Your task to perform on an android device: What is the recent news? Image 0: 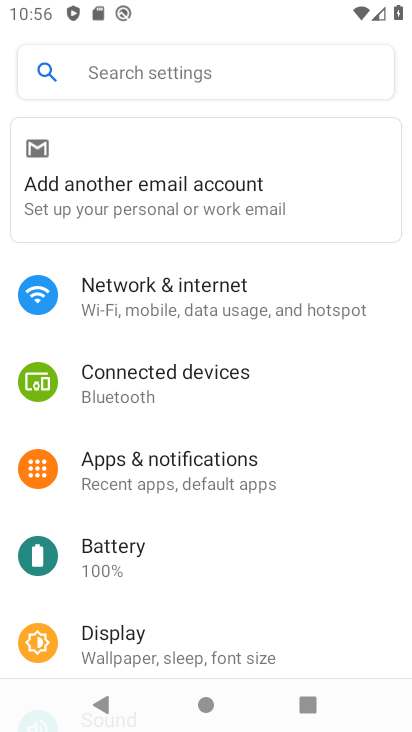
Step 0: press home button
Your task to perform on an android device: What is the recent news? Image 1: 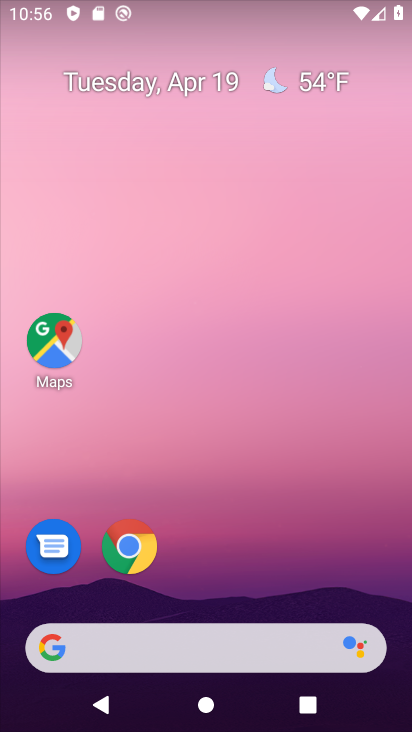
Step 1: click (228, 650)
Your task to perform on an android device: What is the recent news? Image 2: 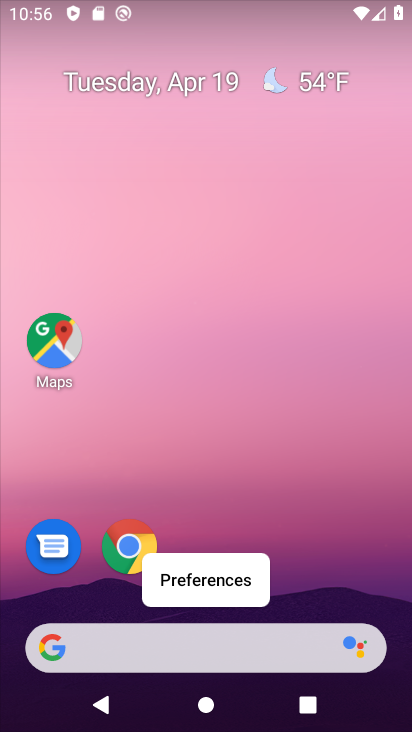
Step 2: click (242, 652)
Your task to perform on an android device: What is the recent news? Image 3: 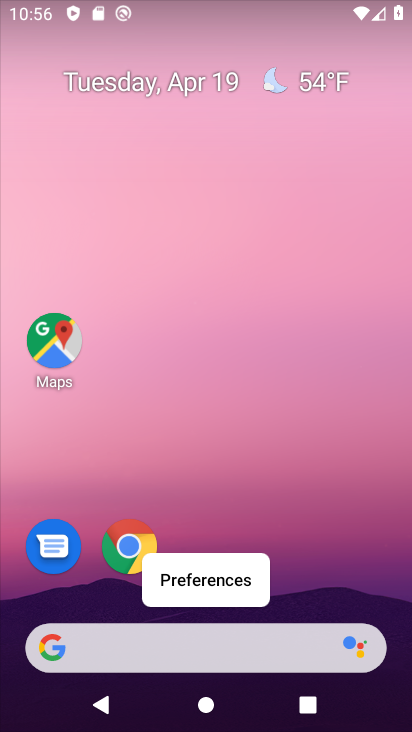
Step 3: click (242, 652)
Your task to perform on an android device: What is the recent news? Image 4: 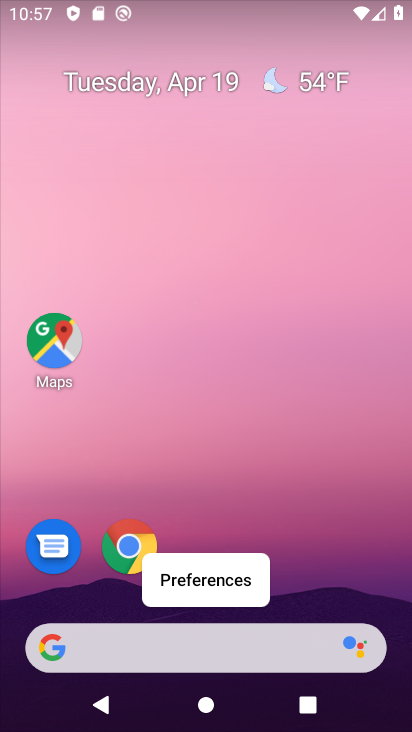
Step 4: type "recent news"
Your task to perform on an android device: What is the recent news? Image 5: 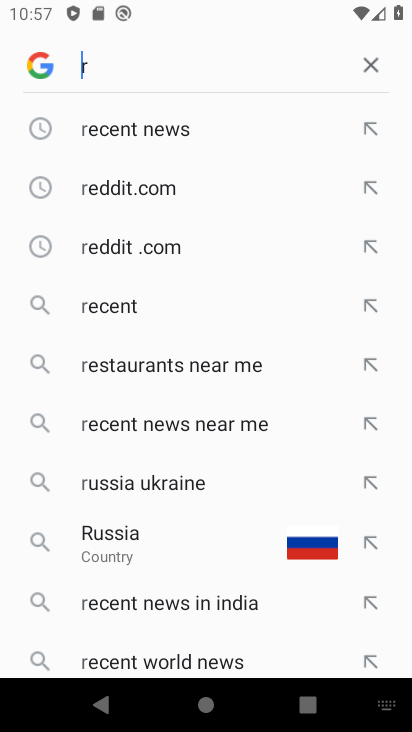
Step 5: click (235, 113)
Your task to perform on an android device: What is the recent news? Image 6: 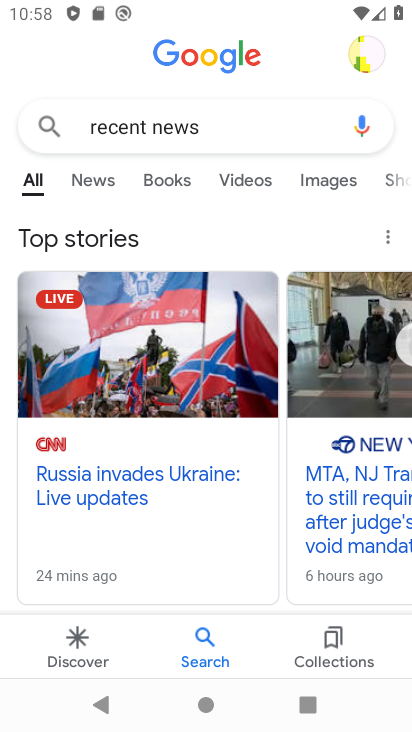
Step 6: task complete